Your task to perform on an android device: toggle notifications settings in the gmail app Image 0: 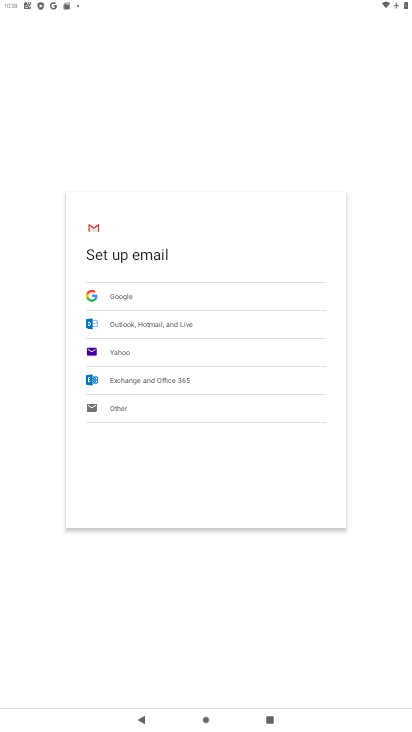
Step 0: press home button
Your task to perform on an android device: toggle notifications settings in the gmail app Image 1: 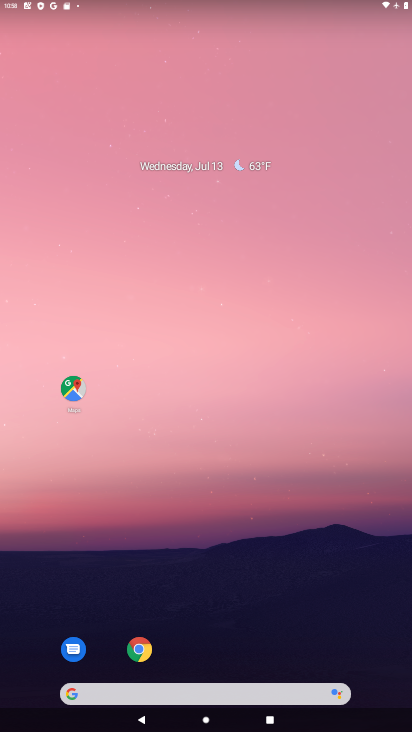
Step 1: drag from (229, 639) to (236, 217)
Your task to perform on an android device: toggle notifications settings in the gmail app Image 2: 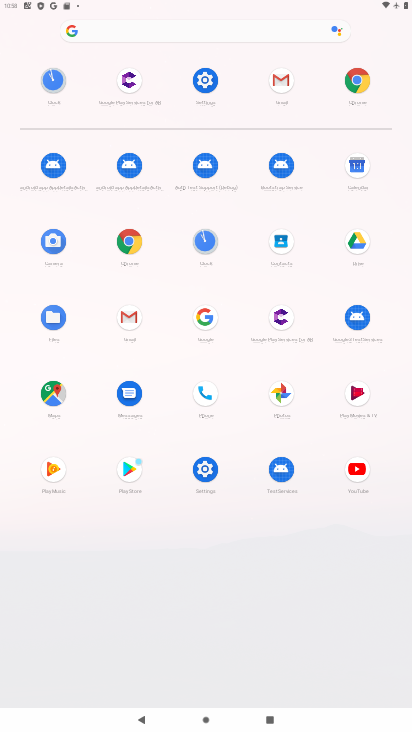
Step 2: click (125, 314)
Your task to perform on an android device: toggle notifications settings in the gmail app Image 3: 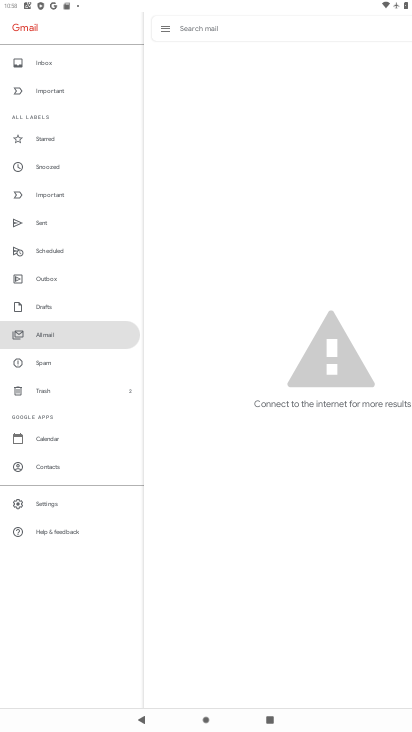
Step 3: click (66, 507)
Your task to perform on an android device: toggle notifications settings in the gmail app Image 4: 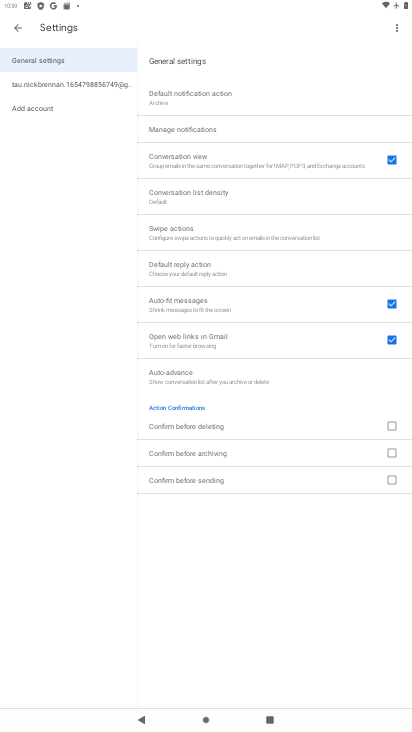
Step 4: click (212, 127)
Your task to perform on an android device: toggle notifications settings in the gmail app Image 5: 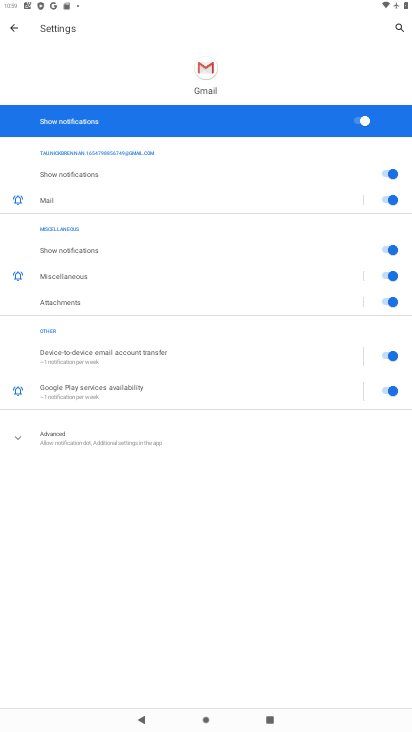
Step 5: task complete